Your task to perform on an android device: toggle improve location accuracy Image 0: 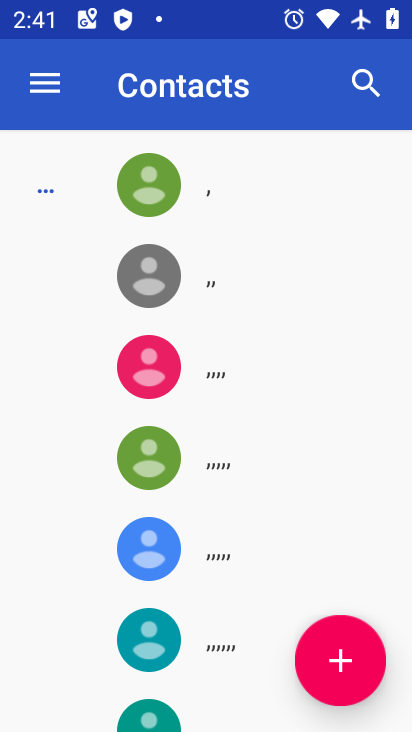
Step 0: press home button
Your task to perform on an android device: toggle improve location accuracy Image 1: 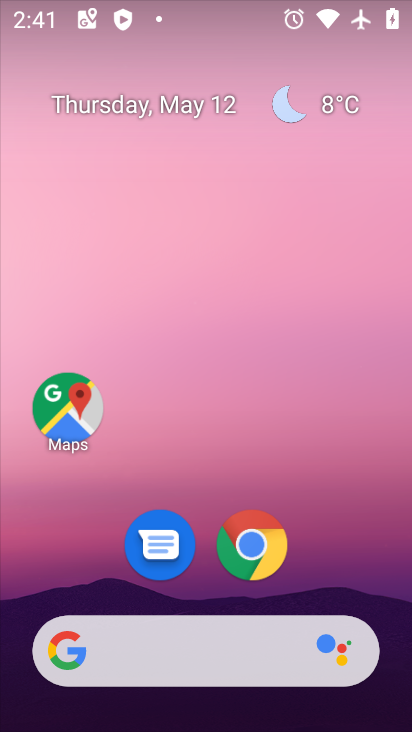
Step 1: drag from (382, 615) to (284, 175)
Your task to perform on an android device: toggle improve location accuracy Image 2: 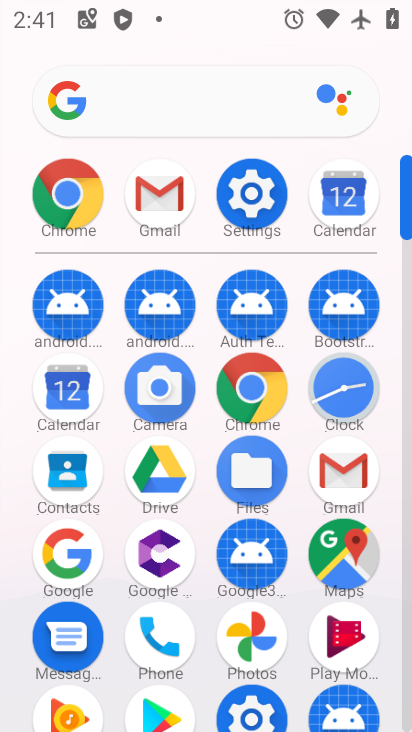
Step 2: click (405, 703)
Your task to perform on an android device: toggle improve location accuracy Image 3: 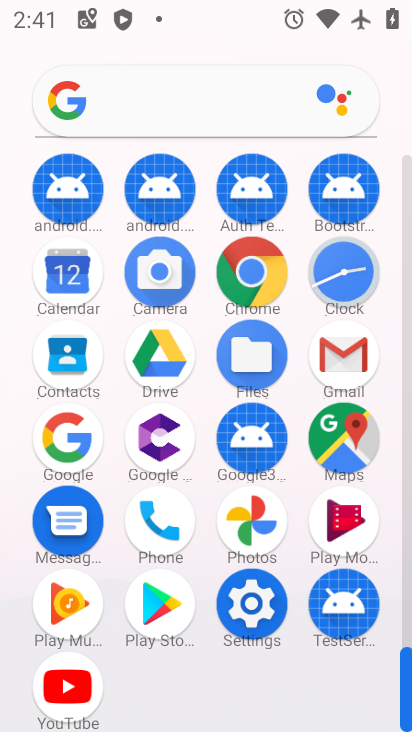
Step 3: click (253, 599)
Your task to perform on an android device: toggle improve location accuracy Image 4: 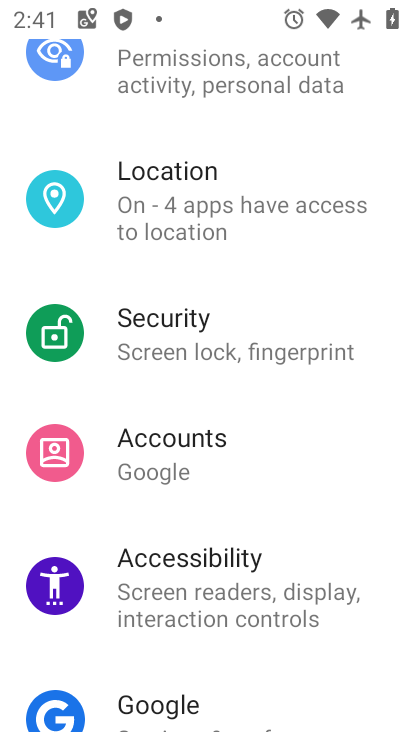
Step 4: click (185, 210)
Your task to perform on an android device: toggle improve location accuracy Image 5: 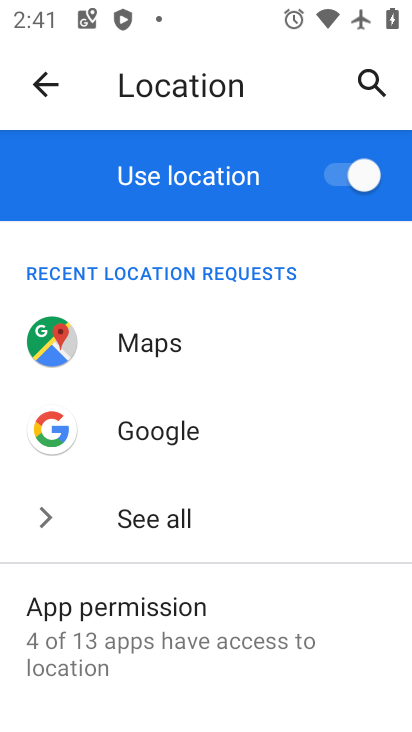
Step 5: drag from (231, 614) to (240, 234)
Your task to perform on an android device: toggle improve location accuracy Image 6: 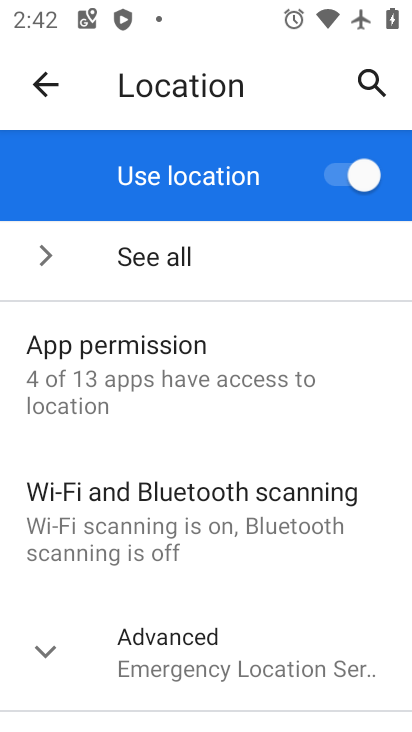
Step 6: click (47, 651)
Your task to perform on an android device: toggle improve location accuracy Image 7: 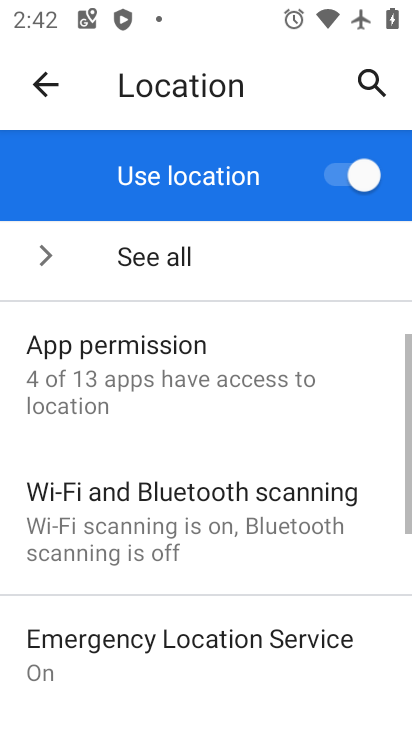
Step 7: drag from (274, 643) to (260, 295)
Your task to perform on an android device: toggle improve location accuracy Image 8: 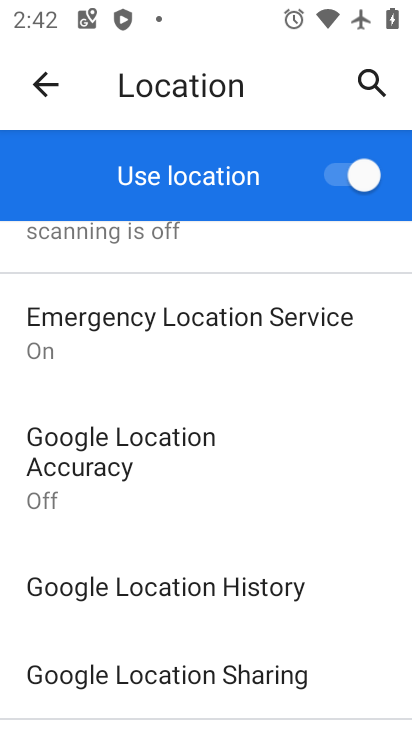
Step 8: click (49, 453)
Your task to perform on an android device: toggle improve location accuracy Image 9: 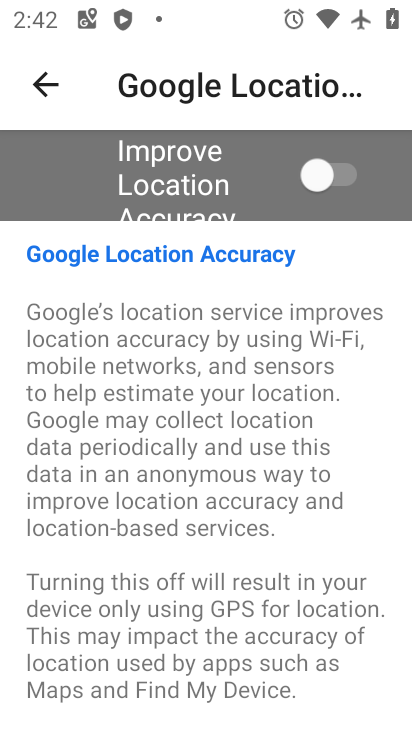
Step 9: click (342, 169)
Your task to perform on an android device: toggle improve location accuracy Image 10: 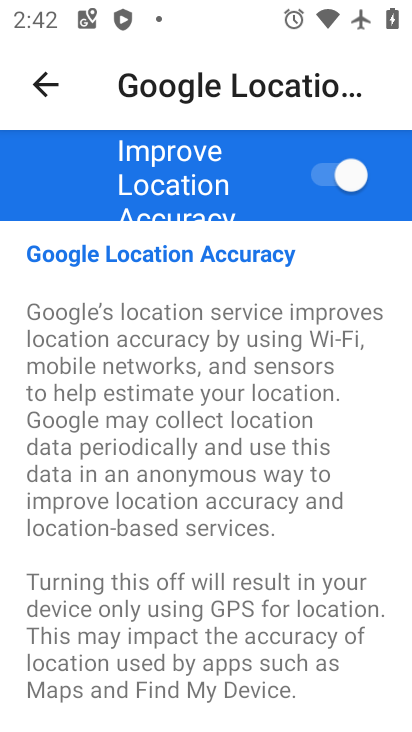
Step 10: task complete